Your task to perform on an android device: Go to internet settings Image 0: 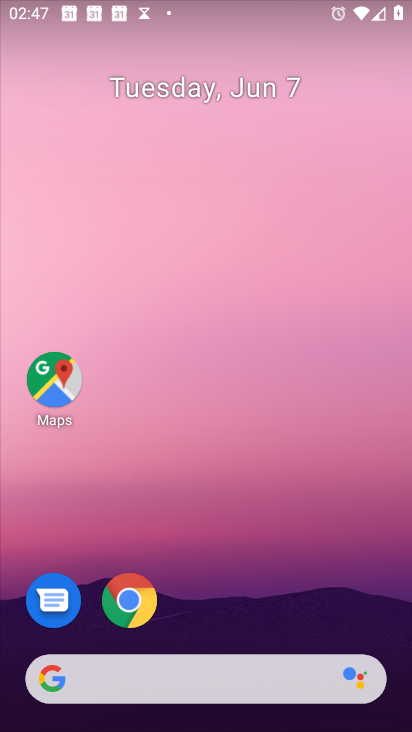
Step 0: drag from (194, 728) to (221, 243)
Your task to perform on an android device: Go to internet settings Image 1: 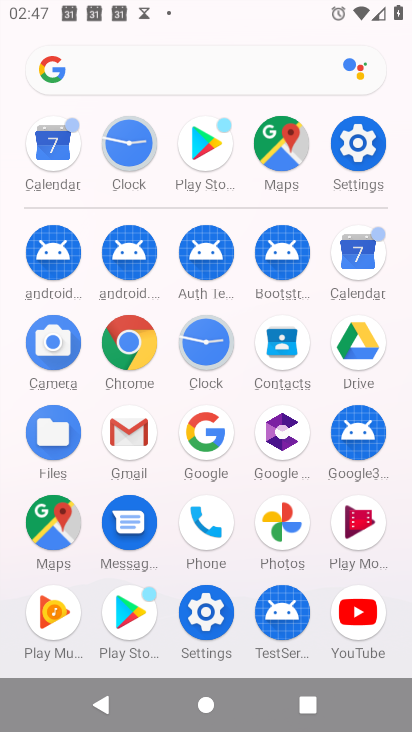
Step 1: click (362, 142)
Your task to perform on an android device: Go to internet settings Image 2: 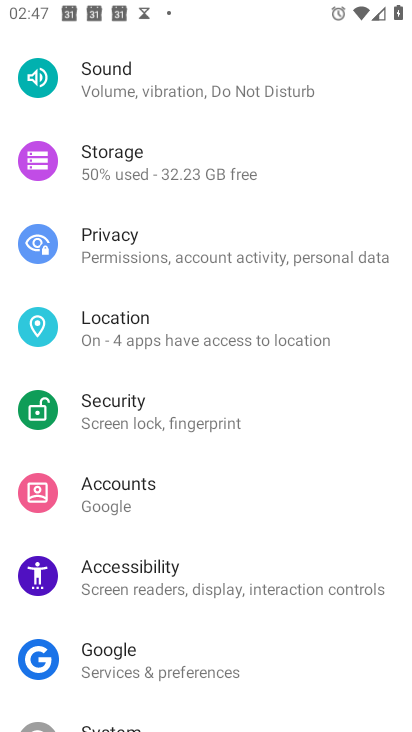
Step 2: drag from (216, 114) to (262, 549)
Your task to perform on an android device: Go to internet settings Image 3: 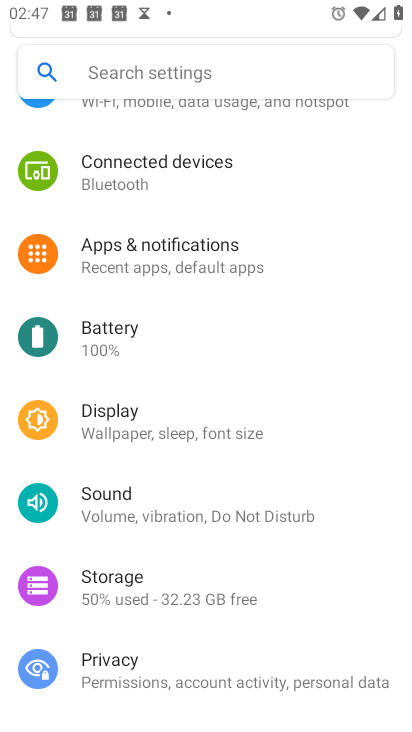
Step 3: drag from (238, 190) to (262, 598)
Your task to perform on an android device: Go to internet settings Image 4: 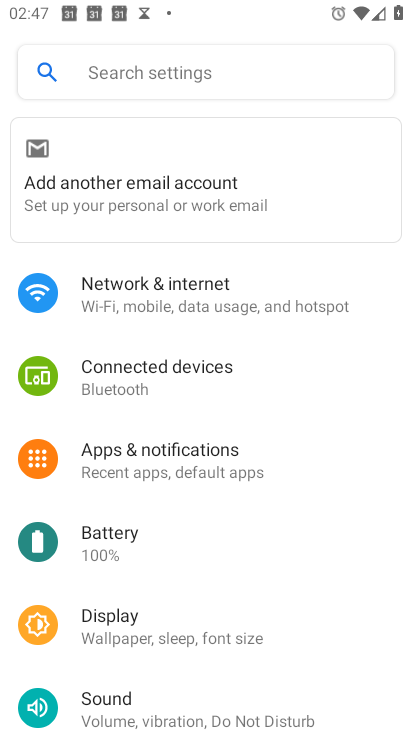
Step 4: click (168, 303)
Your task to perform on an android device: Go to internet settings Image 5: 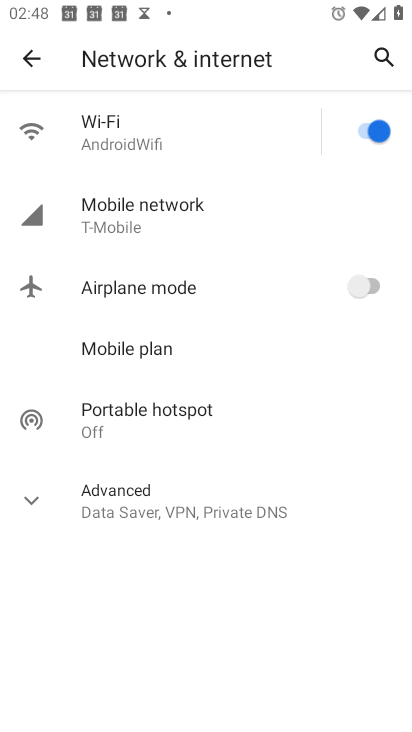
Step 5: task complete